Your task to perform on an android device: see creations saved in the google photos Image 0: 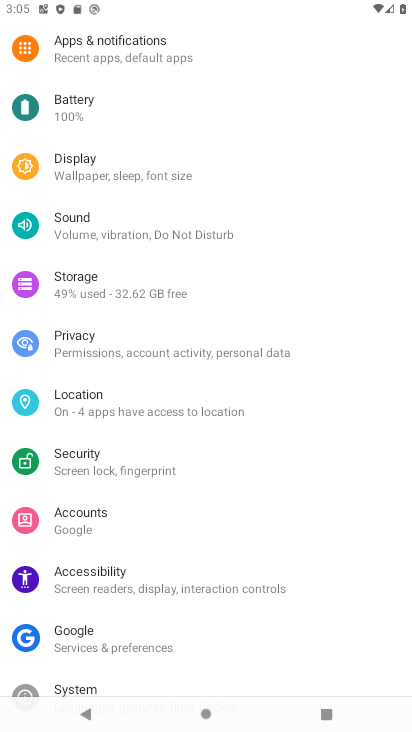
Step 0: press home button
Your task to perform on an android device: see creations saved in the google photos Image 1: 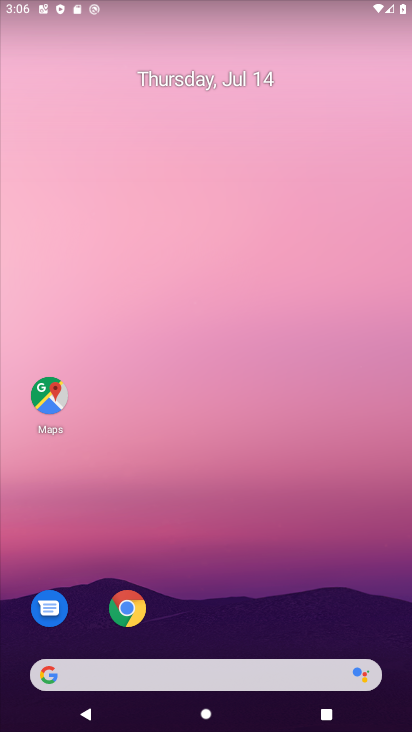
Step 1: drag from (33, 638) to (318, 184)
Your task to perform on an android device: see creations saved in the google photos Image 2: 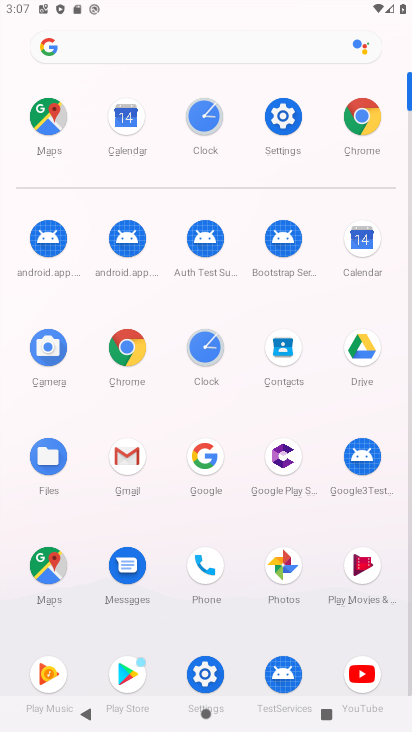
Step 2: click (279, 558)
Your task to perform on an android device: see creations saved in the google photos Image 3: 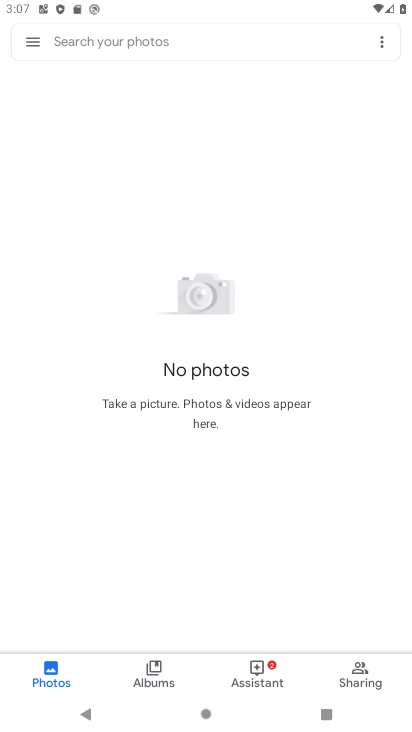
Step 3: click (246, 662)
Your task to perform on an android device: see creations saved in the google photos Image 4: 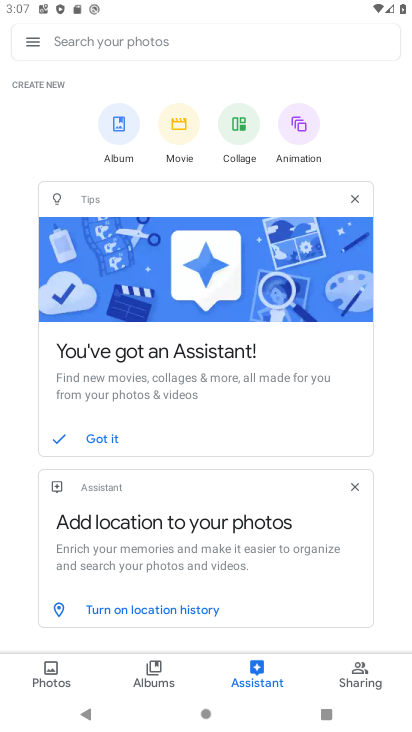
Step 4: click (36, 41)
Your task to perform on an android device: see creations saved in the google photos Image 5: 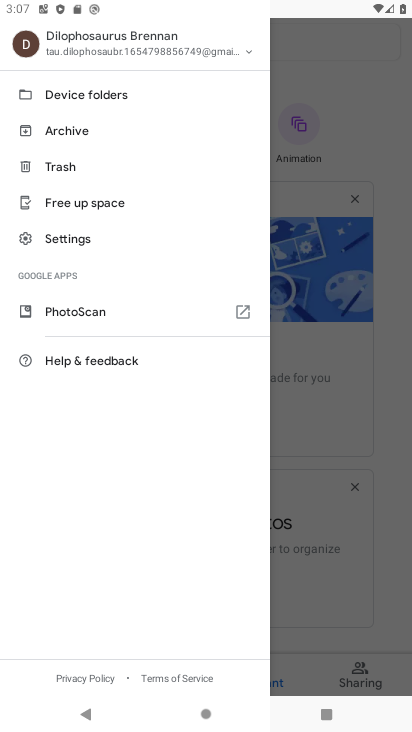
Step 5: click (339, 129)
Your task to perform on an android device: see creations saved in the google photos Image 6: 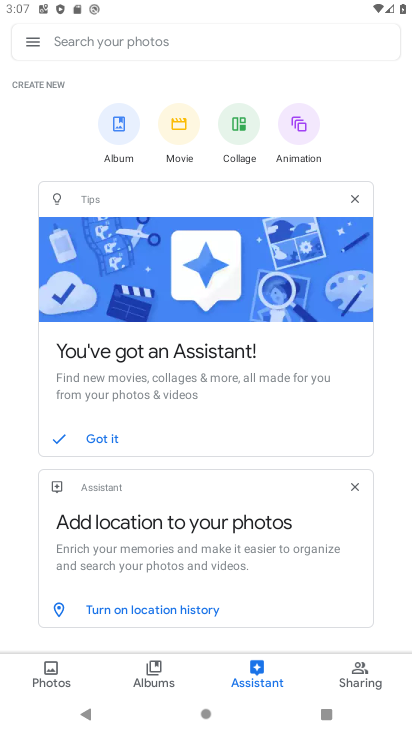
Step 6: click (171, 43)
Your task to perform on an android device: see creations saved in the google photos Image 7: 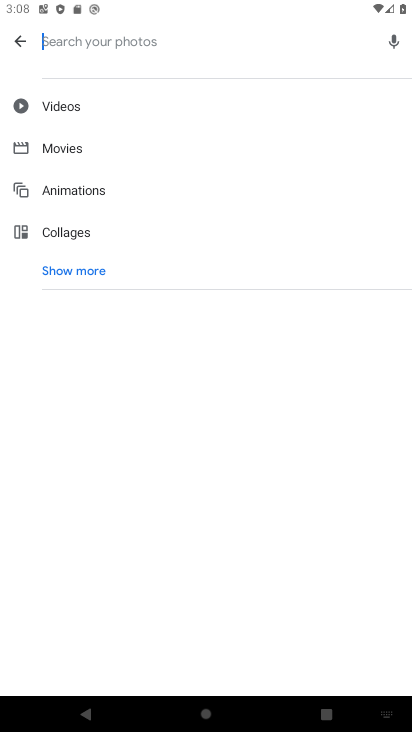
Step 7: click (83, 275)
Your task to perform on an android device: see creations saved in the google photos Image 8: 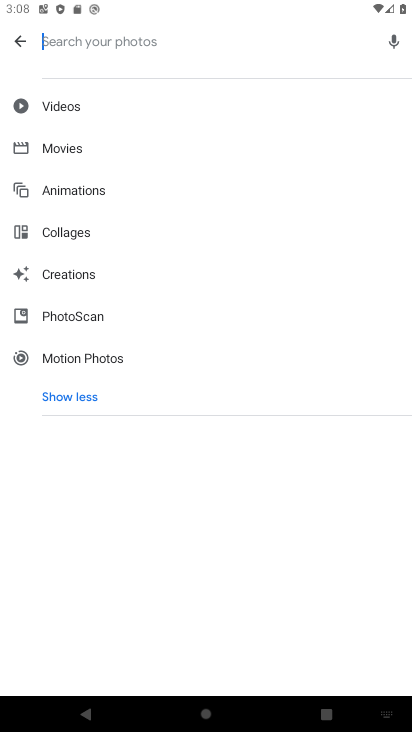
Step 8: click (47, 271)
Your task to perform on an android device: see creations saved in the google photos Image 9: 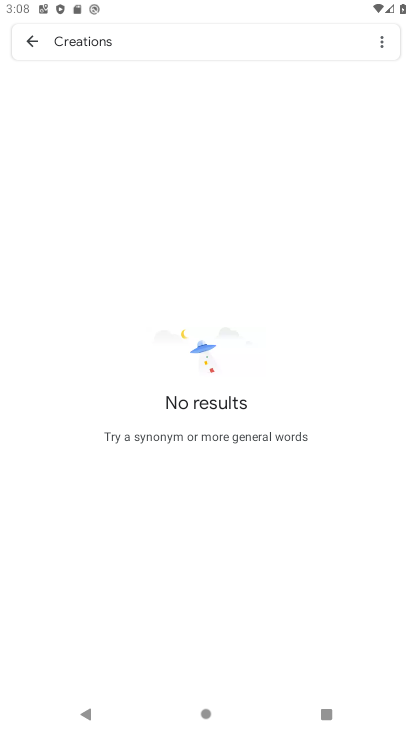
Step 9: task complete